Your task to perform on an android device: Open CNN.com Image 0: 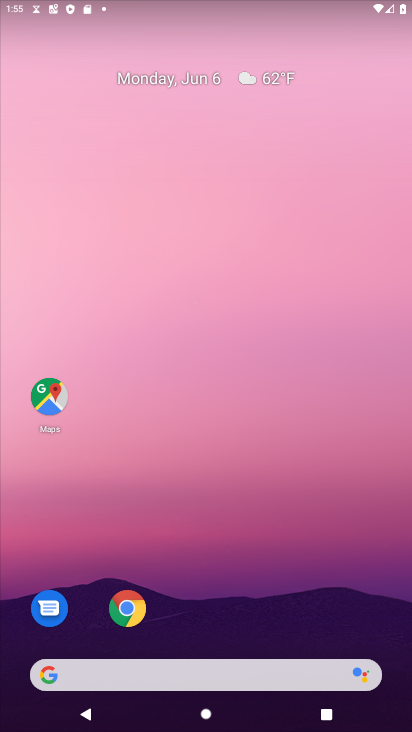
Step 0: drag from (280, 627) to (320, 56)
Your task to perform on an android device: Open CNN.com Image 1: 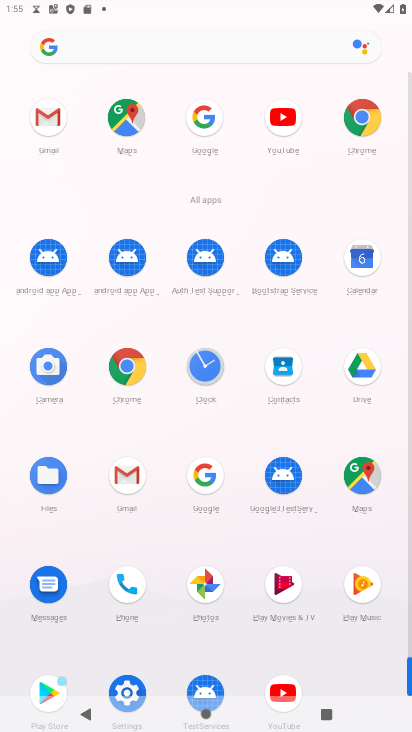
Step 1: click (124, 367)
Your task to perform on an android device: Open CNN.com Image 2: 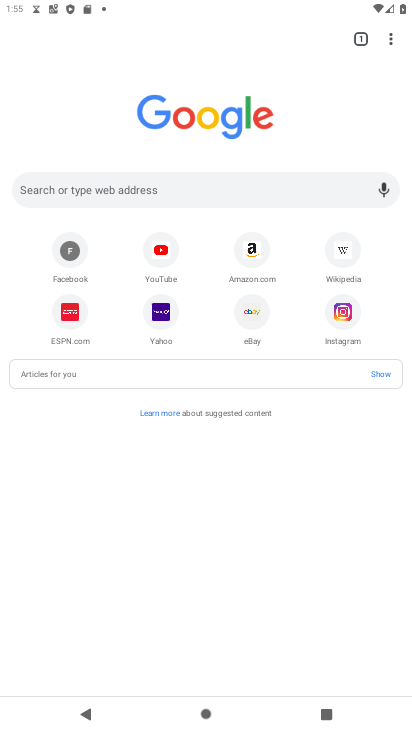
Step 2: click (262, 190)
Your task to perform on an android device: Open CNN.com Image 3: 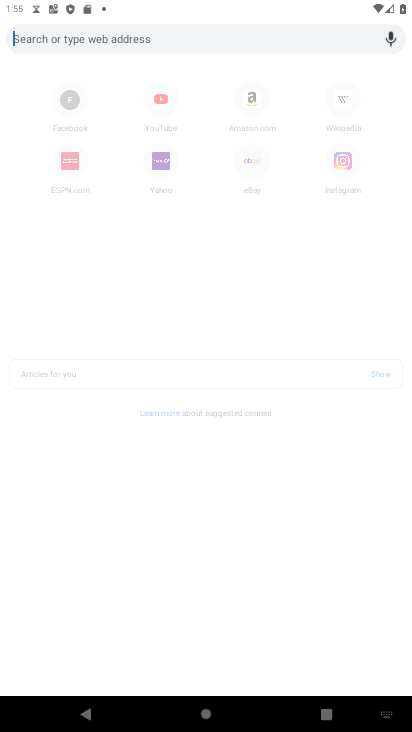
Step 3: type "cnn"
Your task to perform on an android device: Open CNN.com Image 4: 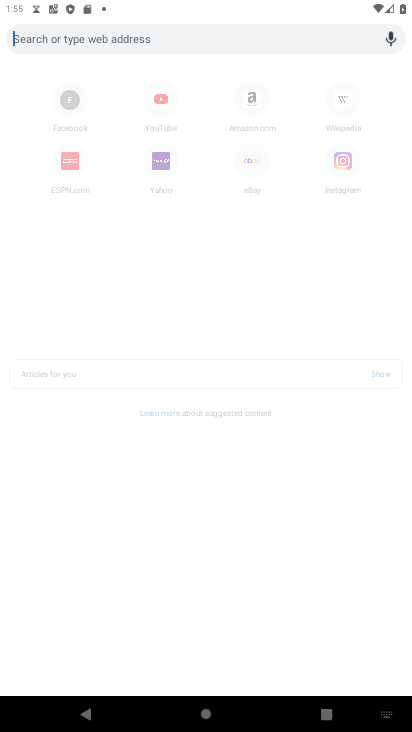
Step 4: click (398, 559)
Your task to perform on an android device: Open CNN.com Image 5: 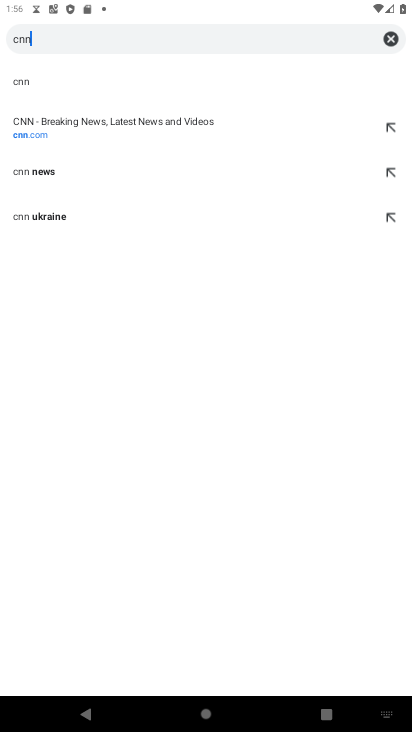
Step 5: click (33, 76)
Your task to perform on an android device: Open CNN.com Image 6: 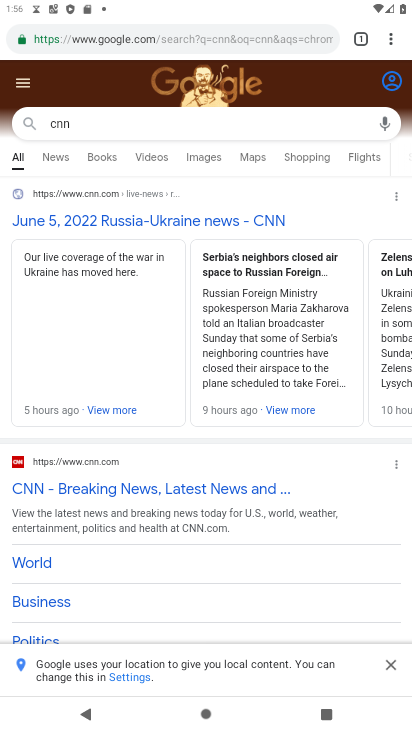
Step 6: click (66, 488)
Your task to perform on an android device: Open CNN.com Image 7: 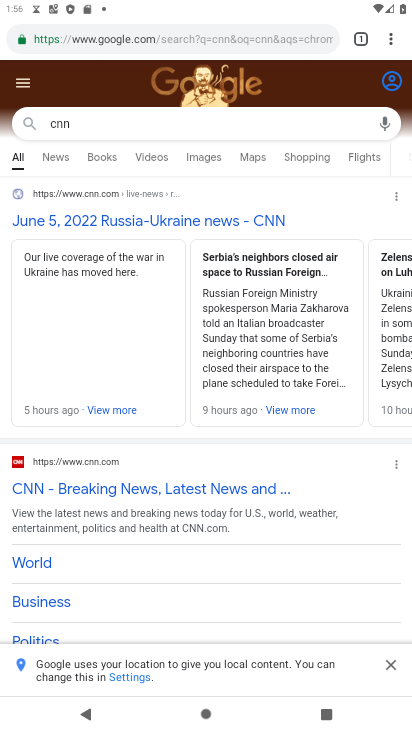
Step 7: task complete